Your task to perform on an android device: star an email in the gmail app Image 0: 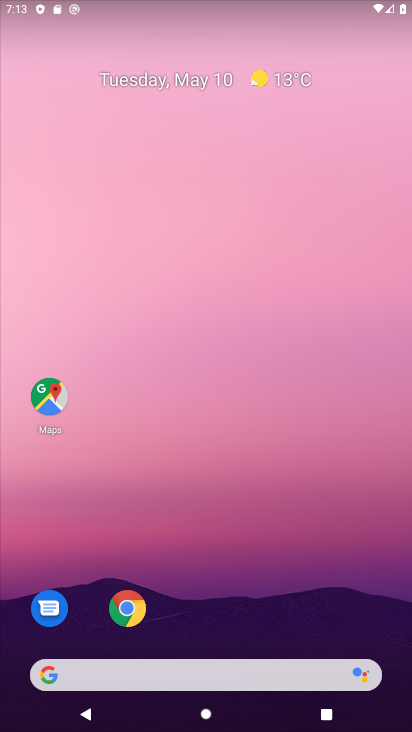
Step 0: drag from (255, 580) to (248, 136)
Your task to perform on an android device: star an email in the gmail app Image 1: 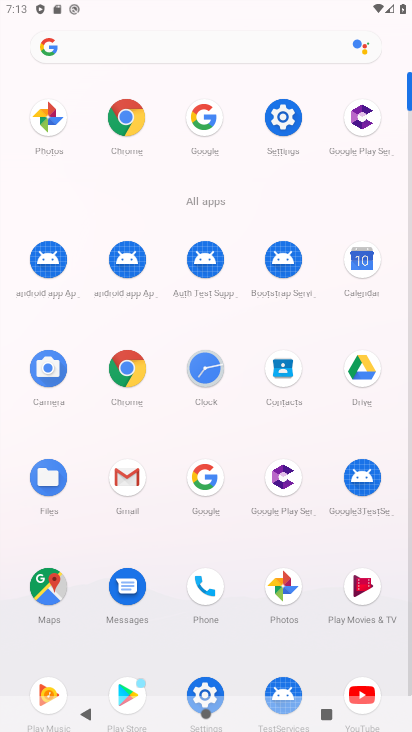
Step 1: click (123, 497)
Your task to perform on an android device: star an email in the gmail app Image 2: 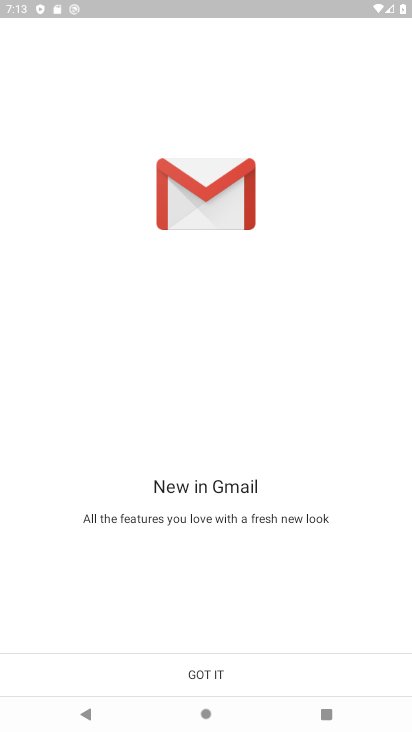
Step 2: click (211, 666)
Your task to perform on an android device: star an email in the gmail app Image 3: 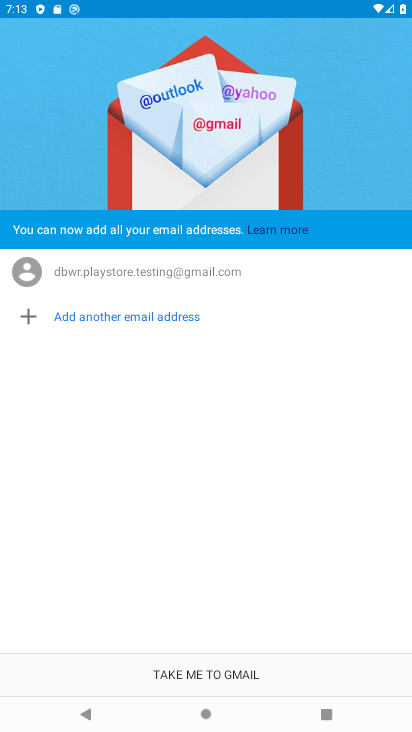
Step 3: click (216, 673)
Your task to perform on an android device: star an email in the gmail app Image 4: 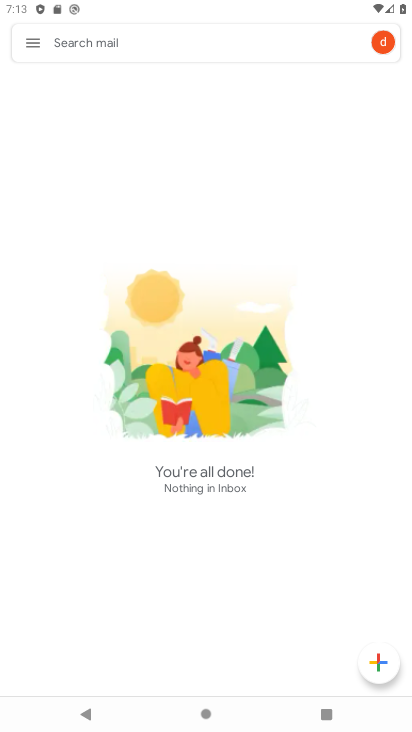
Step 4: click (35, 44)
Your task to perform on an android device: star an email in the gmail app Image 5: 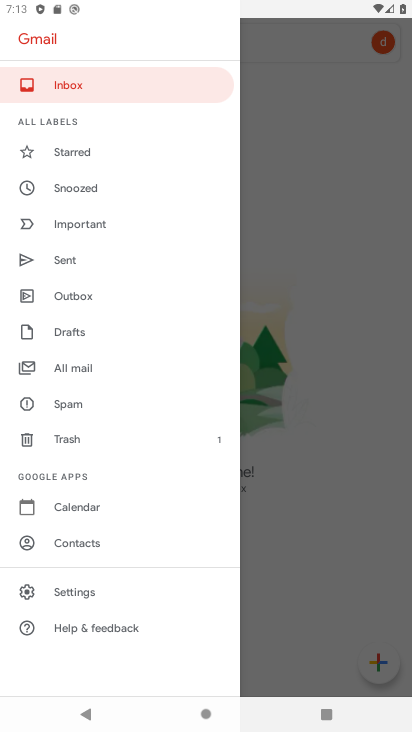
Step 5: click (89, 370)
Your task to perform on an android device: star an email in the gmail app Image 6: 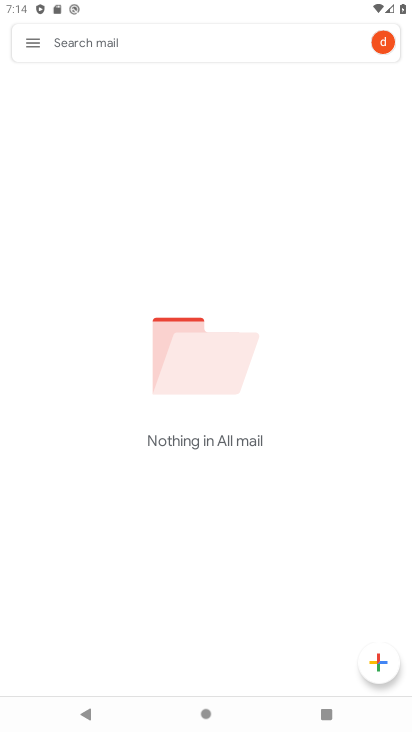
Step 6: task complete